Your task to perform on an android device: Search for "razer nari" on costco, select the first entry, and add it to the cart. Image 0: 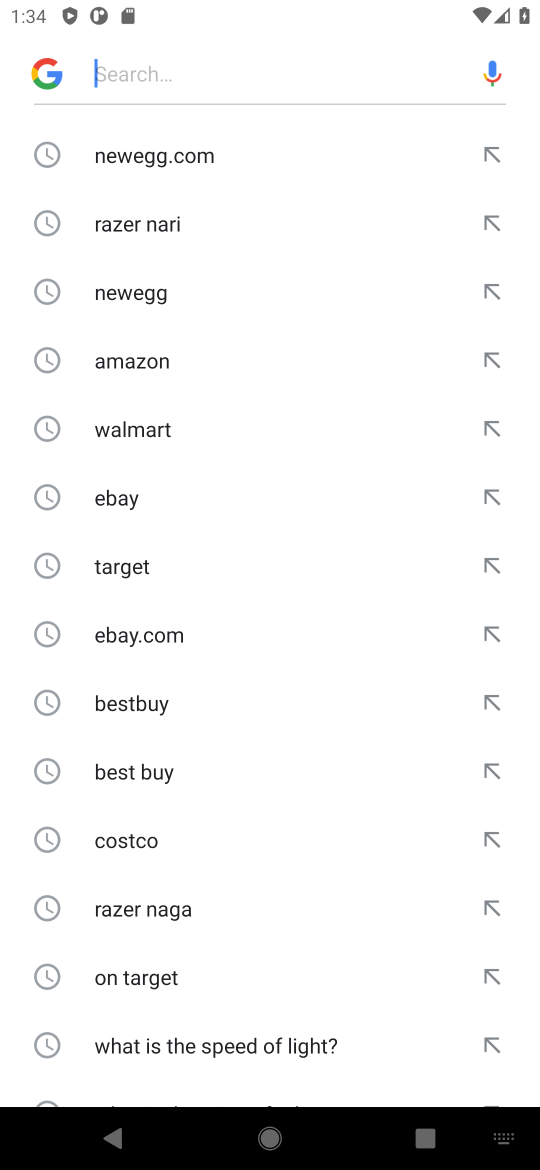
Step 0: press home button
Your task to perform on an android device: Search for "razer nari" on costco, select the first entry, and add it to the cart. Image 1: 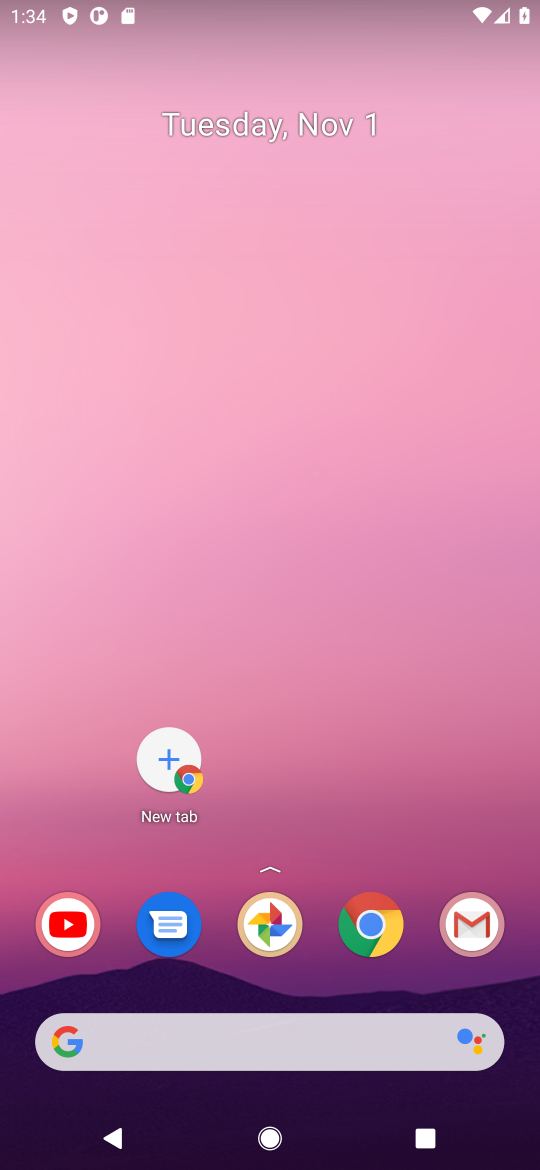
Step 1: click (372, 951)
Your task to perform on an android device: Search for "razer nari" on costco, select the first entry, and add it to the cart. Image 2: 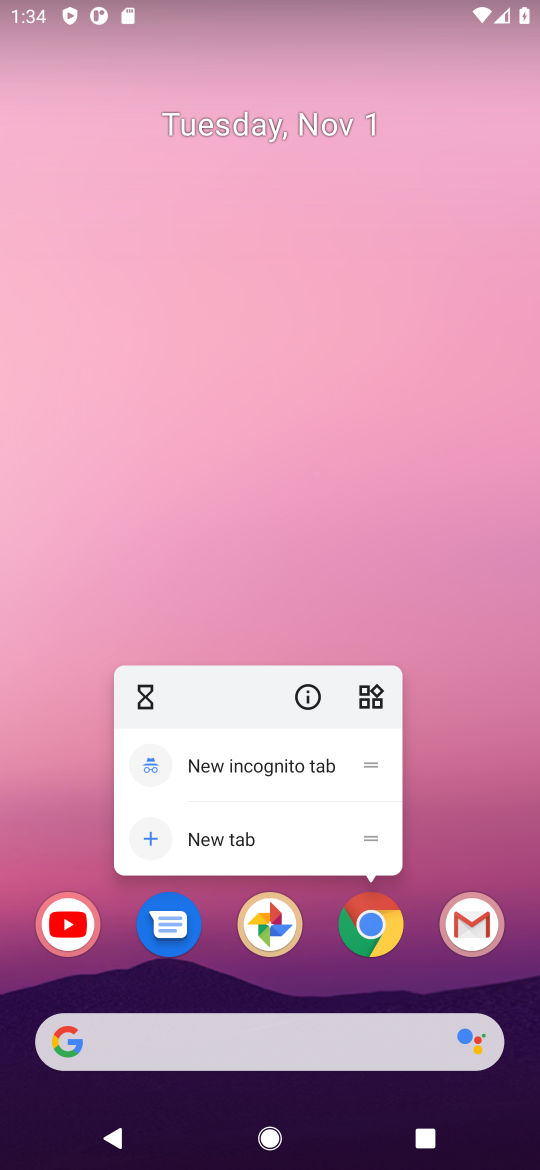
Step 2: click (366, 914)
Your task to perform on an android device: Search for "razer nari" on costco, select the first entry, and add it to the cart. Image 3: 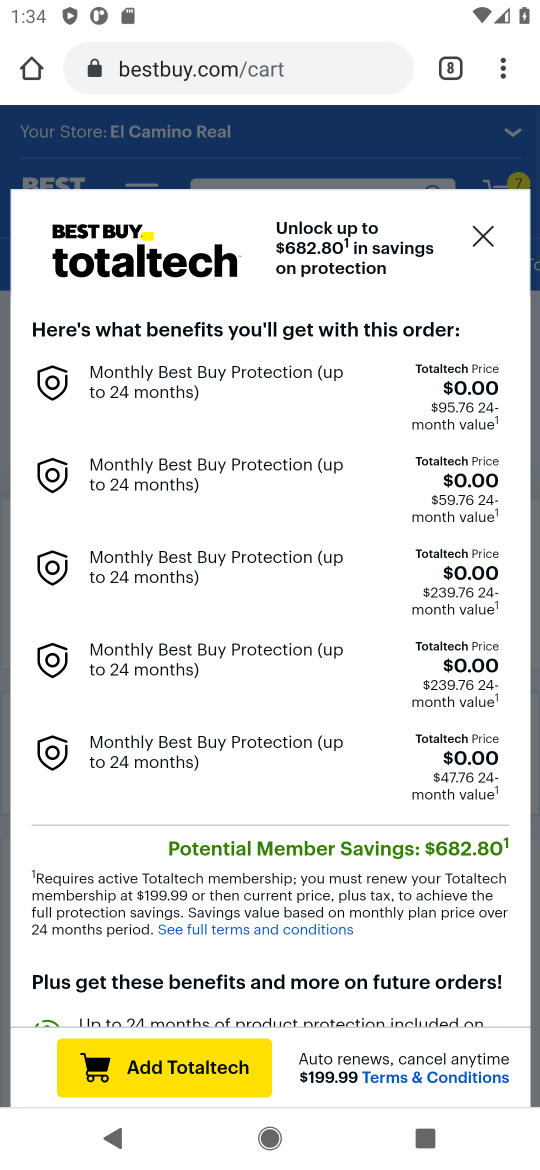
Step 3: click (182, 83)
Your task to perform on an android device: Search for "razer nari" on costco, select the first entry, and add it to the cart. Image 4: 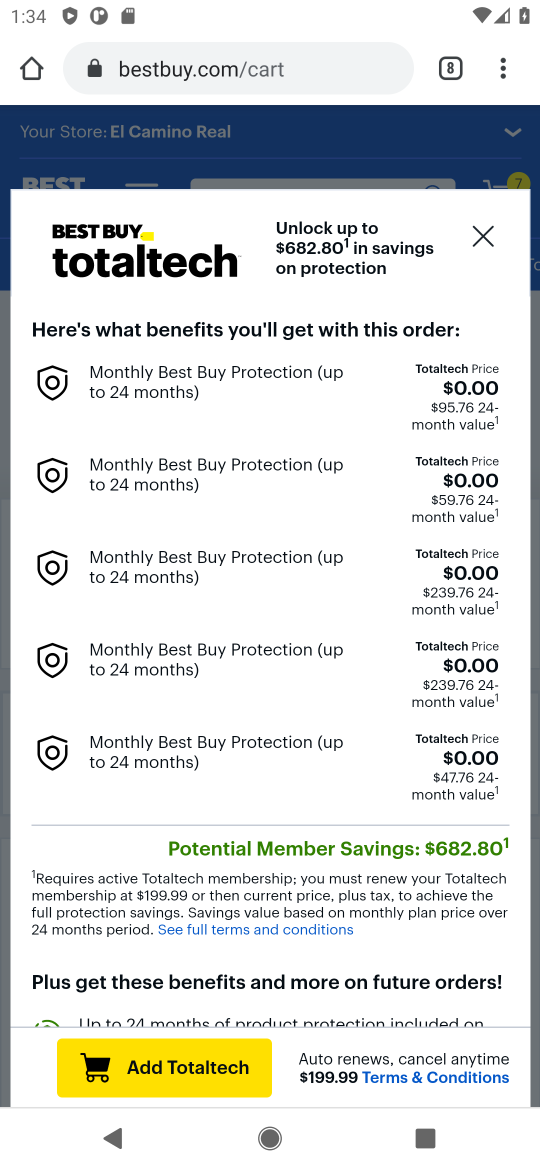
Step 4: click (182, 59)
Your task to perform on an android device: Search for "razer nari" on costco, select the first entry, and add it to the cart. Image 5: 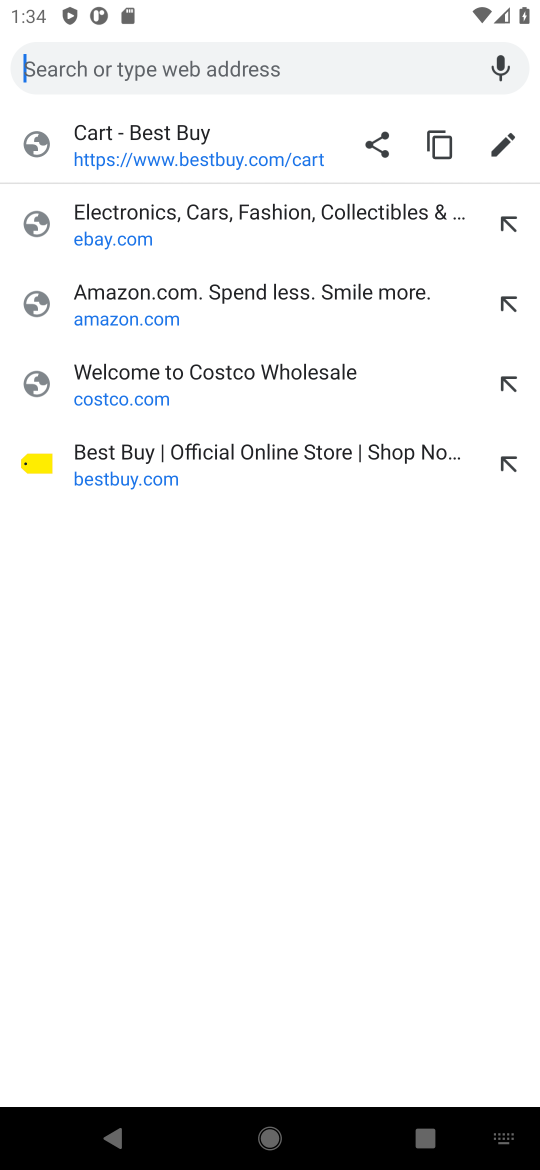
Step 5: type "costco"
Your task to perform on an android device: Search for "razer nari" on costco, select the first entry, and add it to the cart. Image 6: 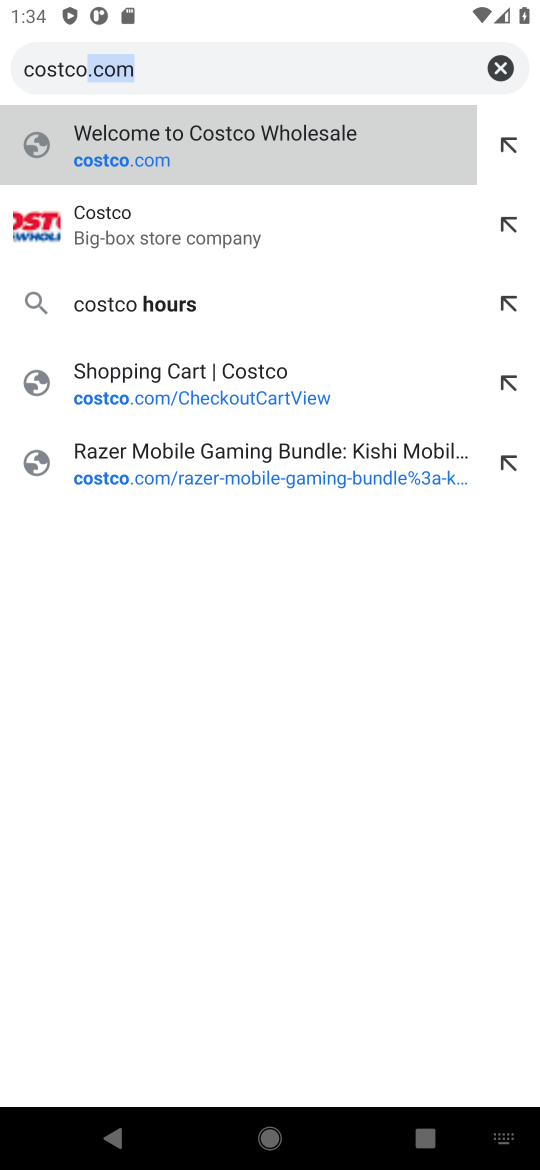
Step 6: click (104, 213)
Your task to perform on an android device: Search for "razer nari" on costco, select the first entry, and add it to the cart. Image 7: 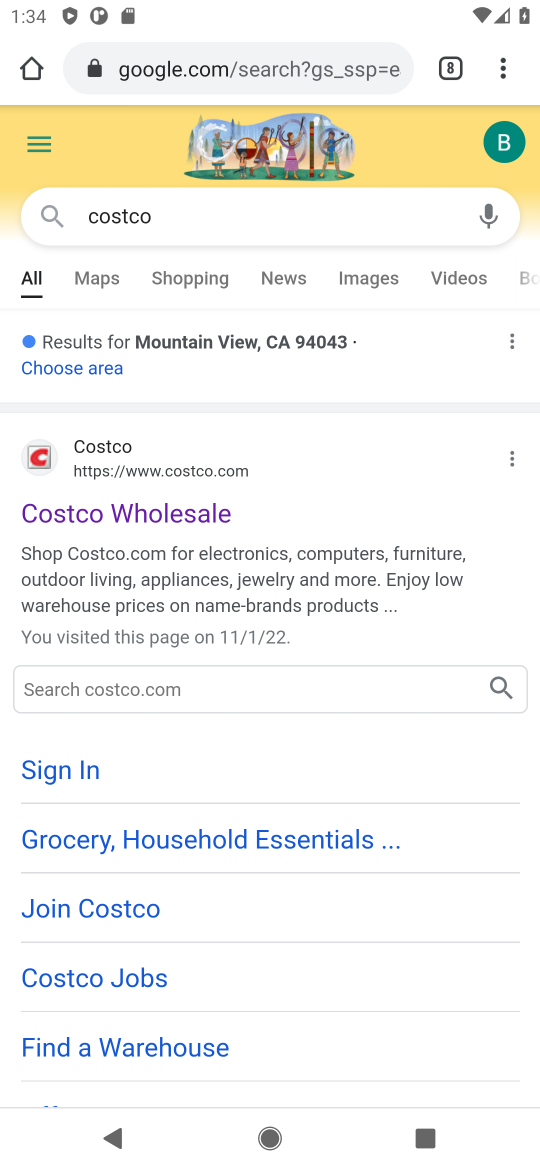
Step 7: click (58, 504)
Your task to perform on an android device: Search for "razer nari" on costco, select the first entry, and add it to the cart. Image 8: 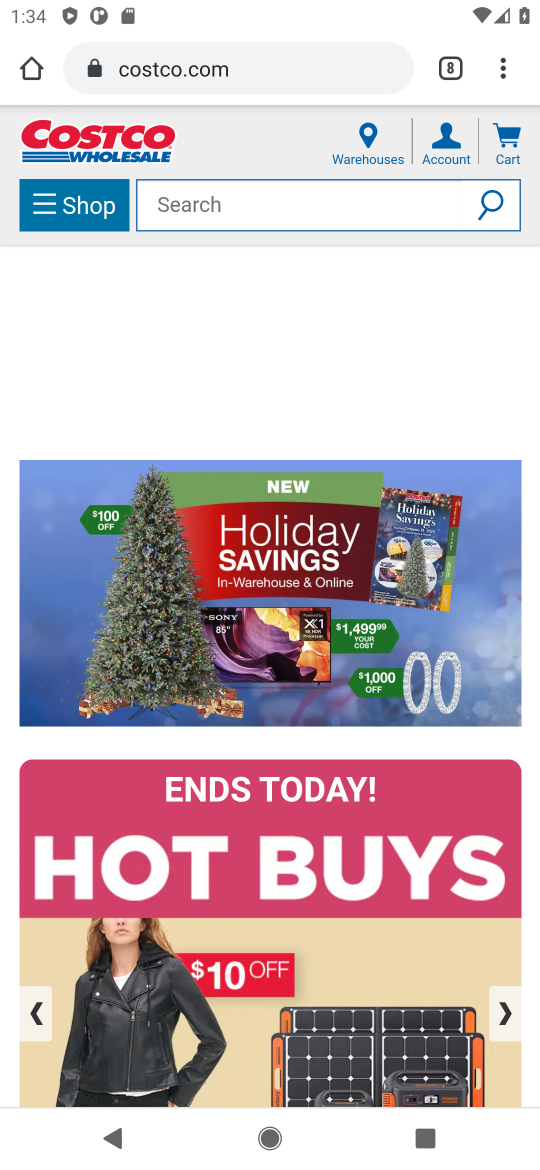
Step 8: click (241, 214)
Your task to perform on an android device: Search for "razer nari" on costco, select the first entry, and add it to the cart. Image 9: 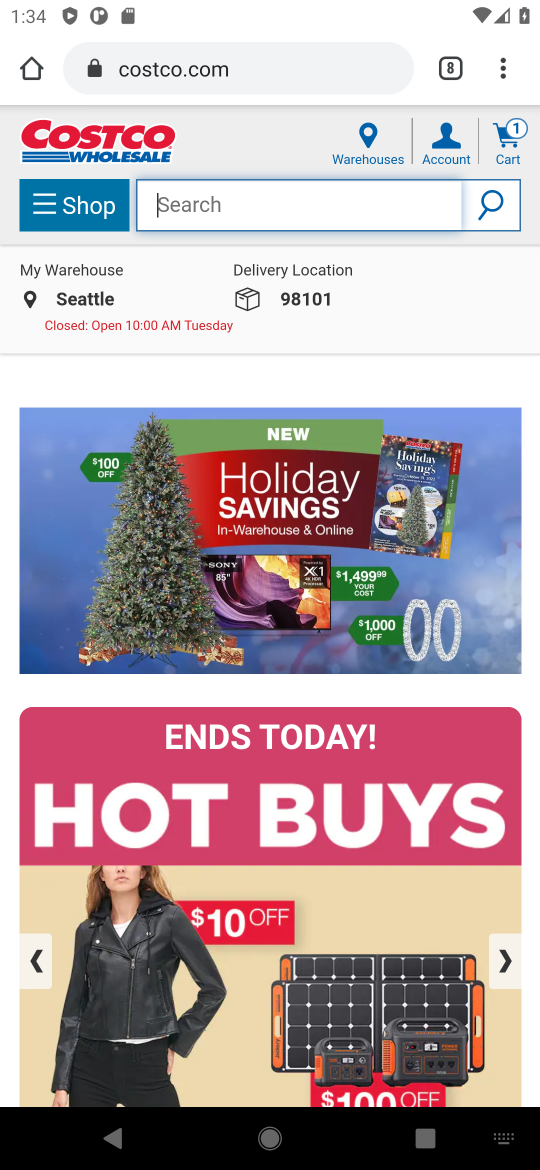
Step 9: type "razer nari"
Your task to perform on an android device: Search for "razer nari" on costco, select the first entry, and add it to the cart. Image 10: 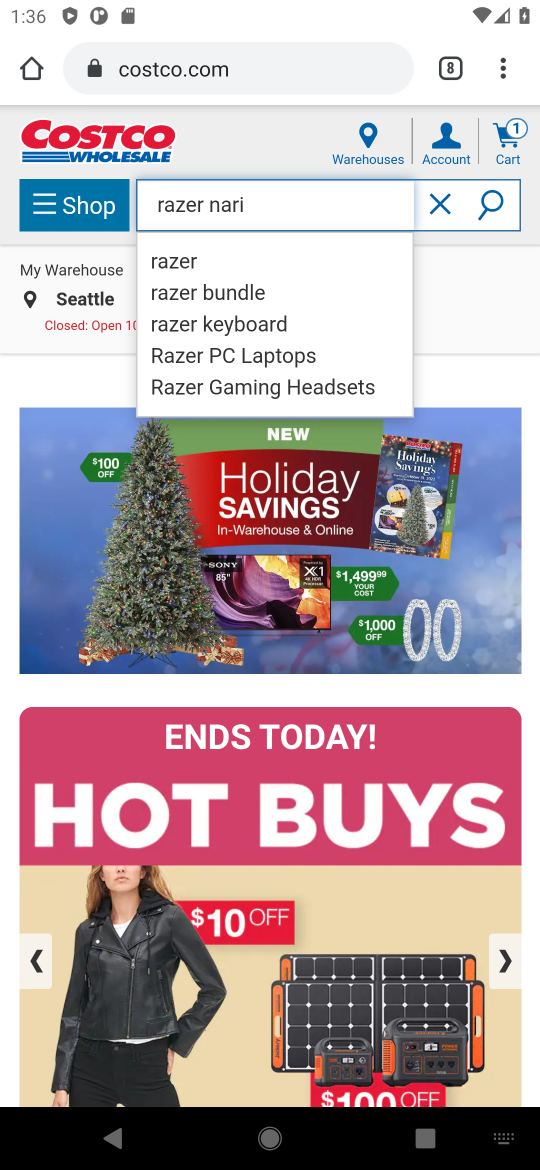
Step 10: click (183, 266)
Your task to perform on an android device: Search for "razer nari" on costco, select the first entry, and add it to the cart. Image 11: 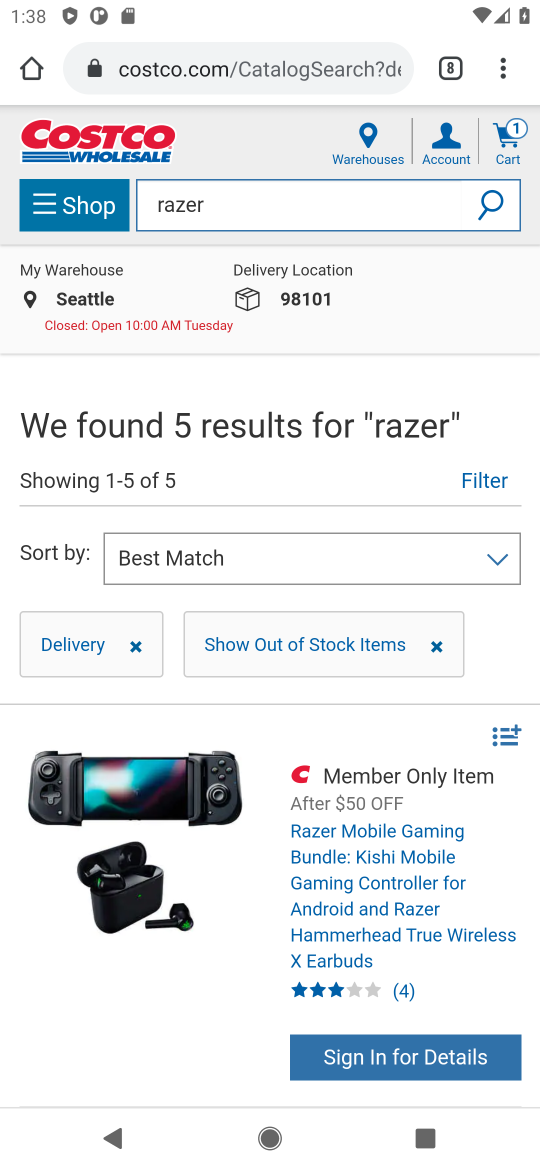
Step 11: click (159, 877)
Your task to perform on an android device: Search for "razer nari" on costco, select the first entry, and add it to the cart. Image 12: 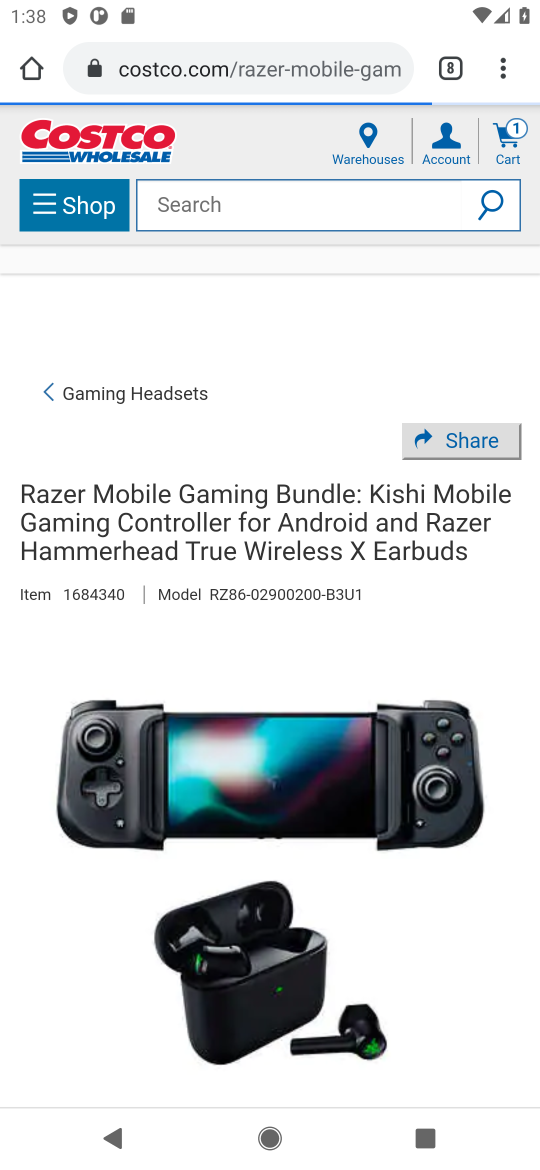
Step 12: drag from (248, 872) to (324, 234)
Your task to perform on an android device: Search for "razer nari" on costco, select the first entry, and add it to the cart. Image 13: 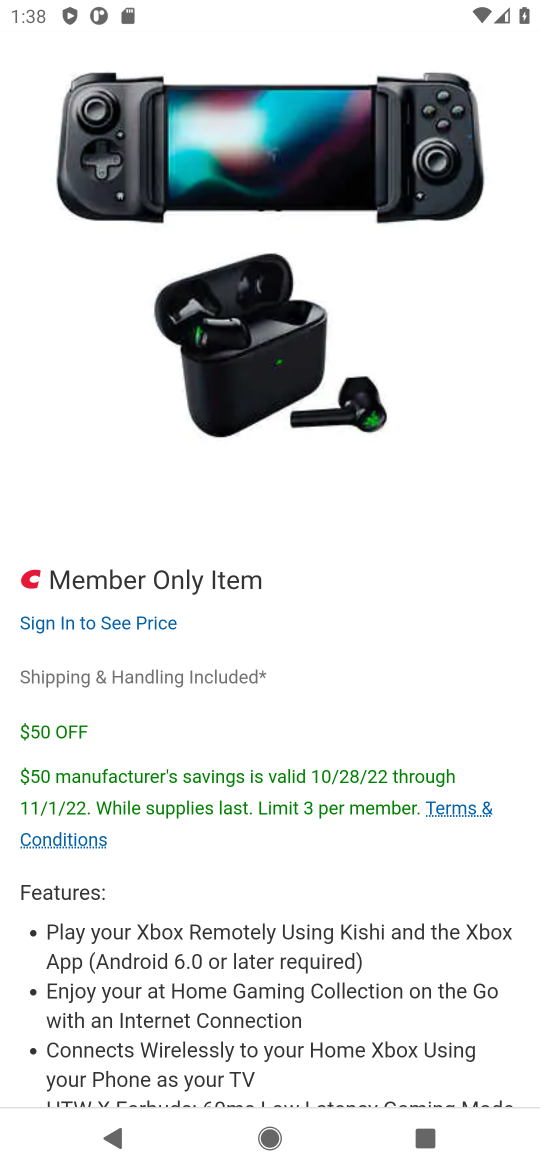
Step 13: drag from (314, 762) to (310, 340)
Your task to perform on an android device: Search for "razer nari" on costco, select the first entry, and add it to the cart. Image 14: 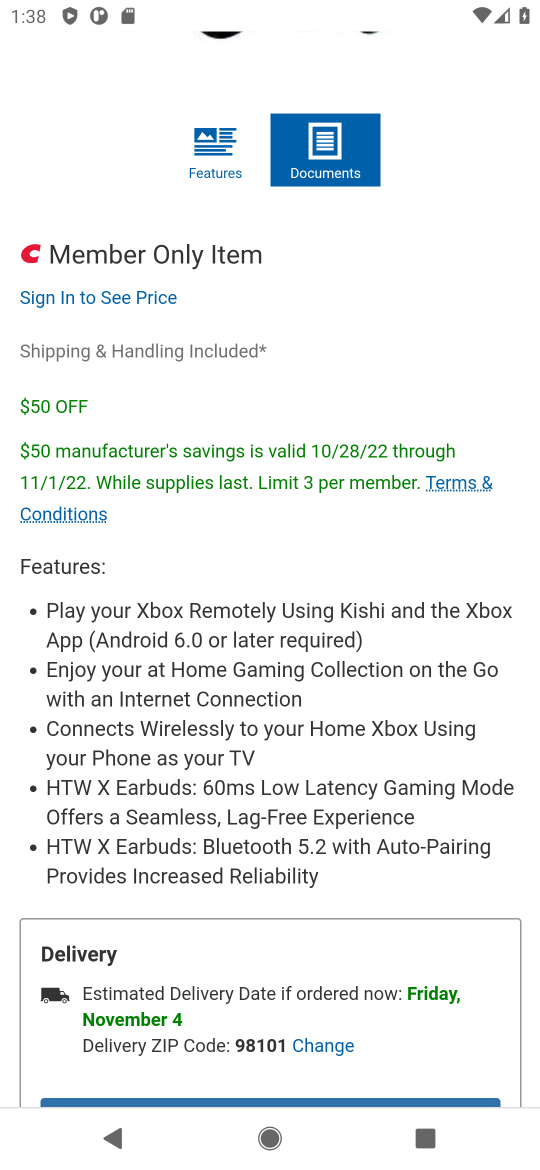
Step 14: drag from (286, 878) to (280, 518)
Your task to perform on an android device: Search for "razer nari" on costco, select the first entry, and add it to the cart. Image 15: 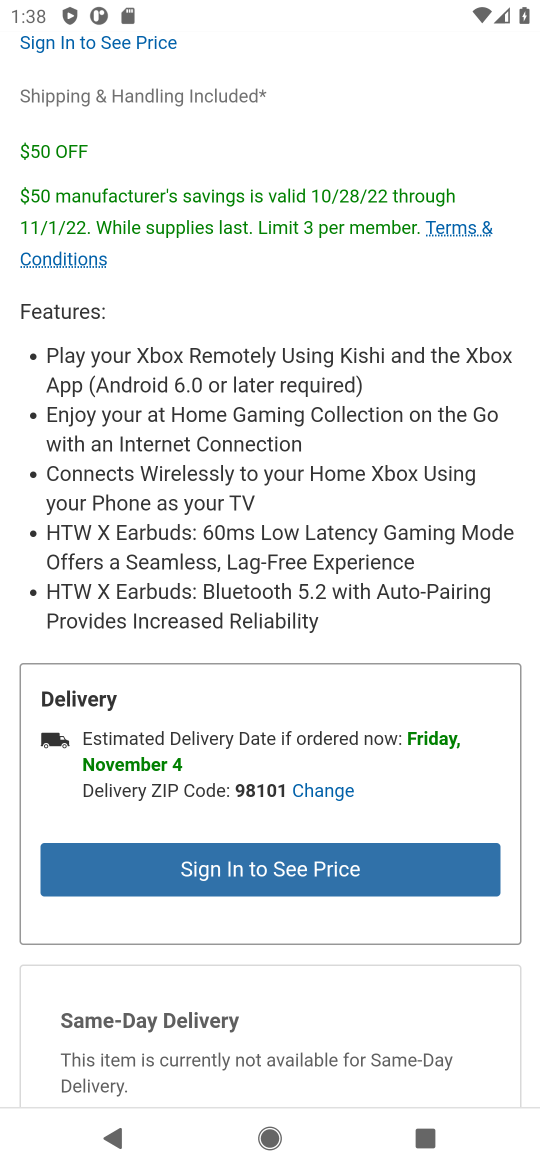
Step 15: drag from (259, 849) to (315, 532)
Your task to perform on an android device: Search for "razer nari" on costco, select the first entry, and add it to the cart. Image 16: 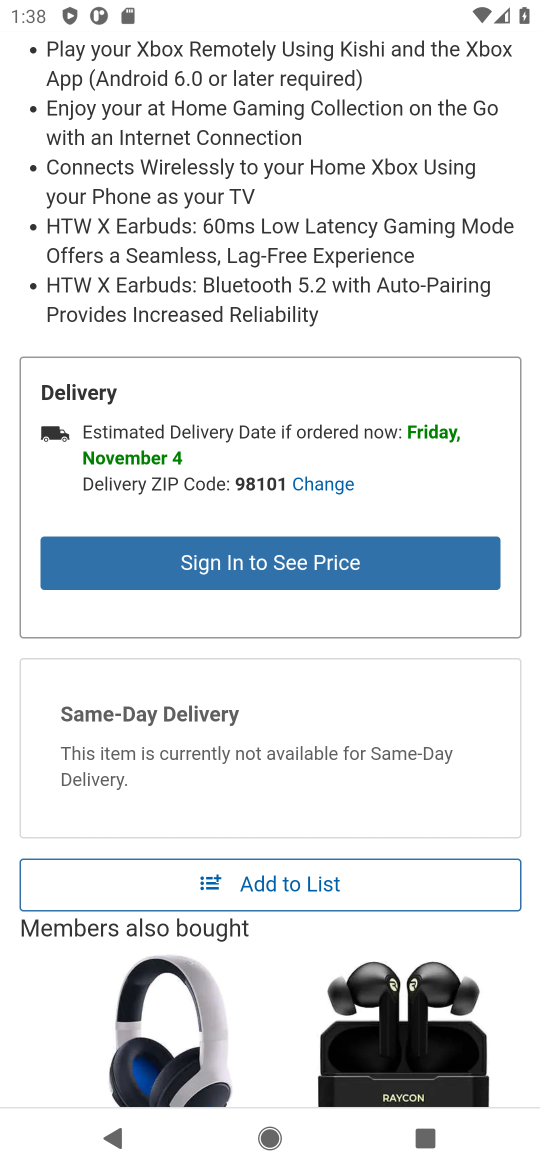
Step 16: click (255, 1040)
Your task to perform on an android device: Search for "razer nari" on costco, select the first entry, and add it to the cart. Image 17: 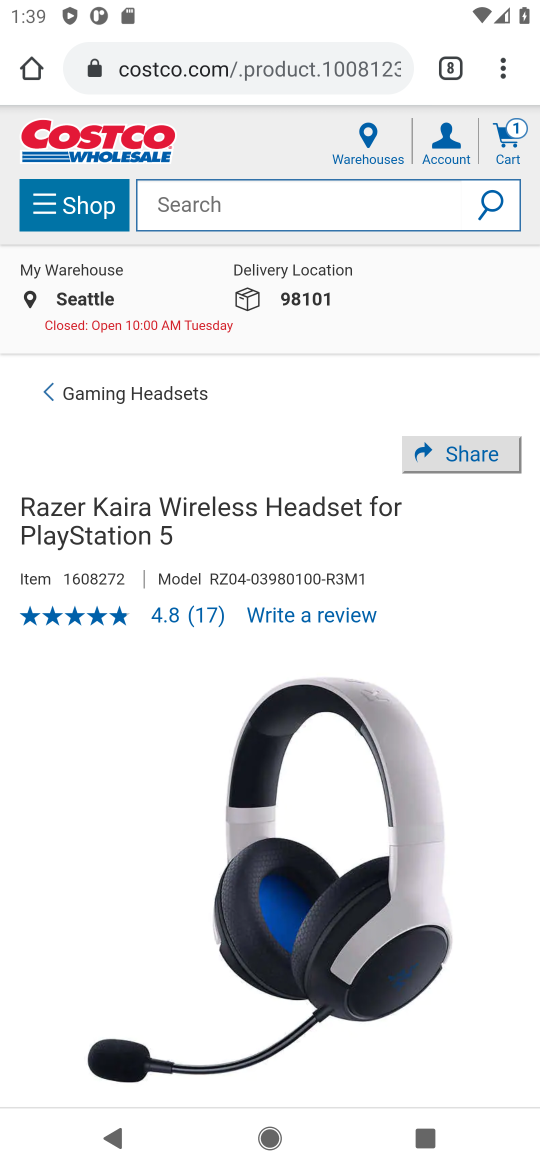
Step 17: task complete